Your task to perform on an android device: Open calendar and show me the second week of next month Image 0: 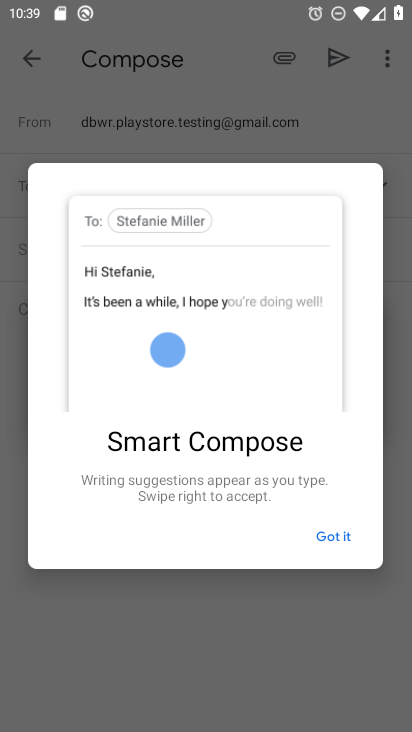
Step 0: press home button
Your task to perform on an android device: Open calendar and show me the second week of next month Image 1: 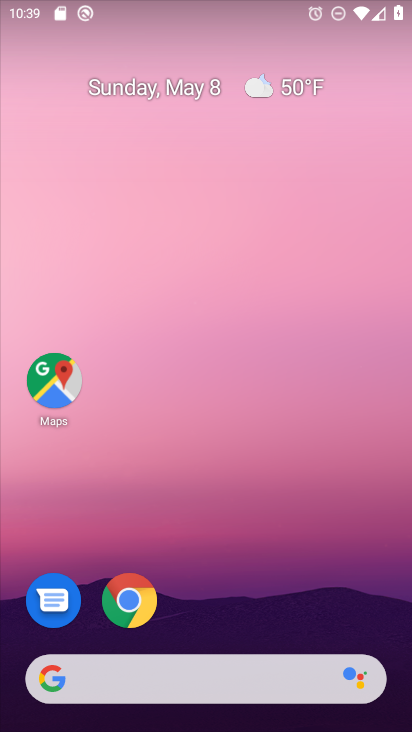
Step 1: drag from (208, 718) to (211, 268)
Your task to perform on an android device: Open calendar and show me the second week of next month Image 2: 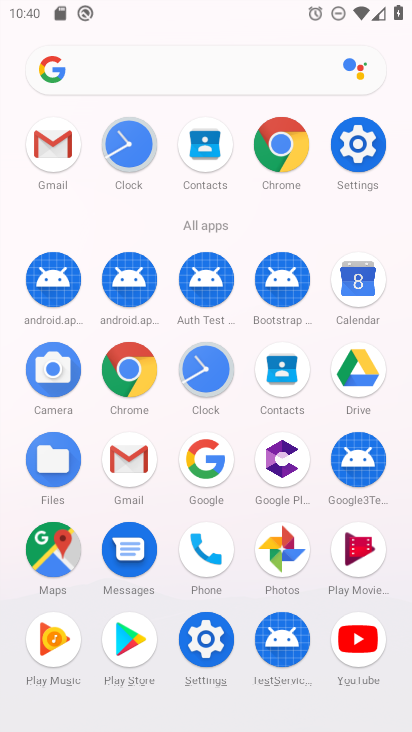
Step 2: click (363, 286)
Your task to perform on an android device: Open calendar and show me the second week of next month Image 3: 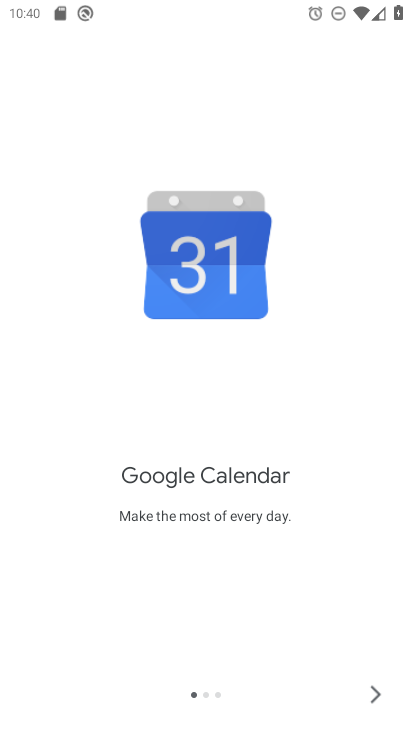
Step 3: click (370, 689)
Your task to perform on an android device: Open calendar and show me the second week of next month Image 4: 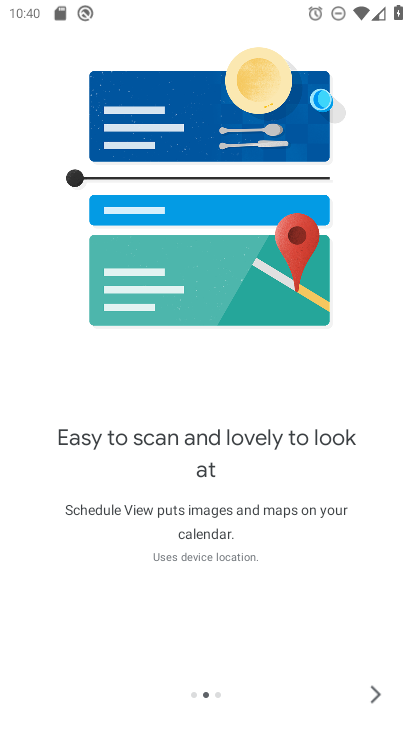
Step 4: click (378, 690)
Your task to perform on an android device: Open calendar and show me the second week of next month Image 5: 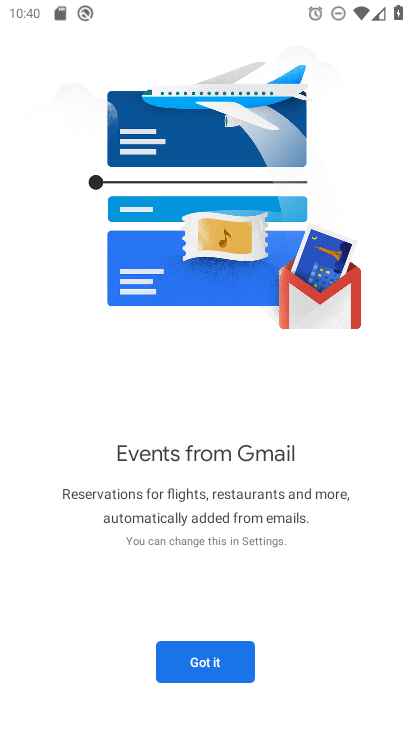
Step 5: click (215, 660)
Your task to perform on an android device: Open calendar and show me the second week of next month Image 6: 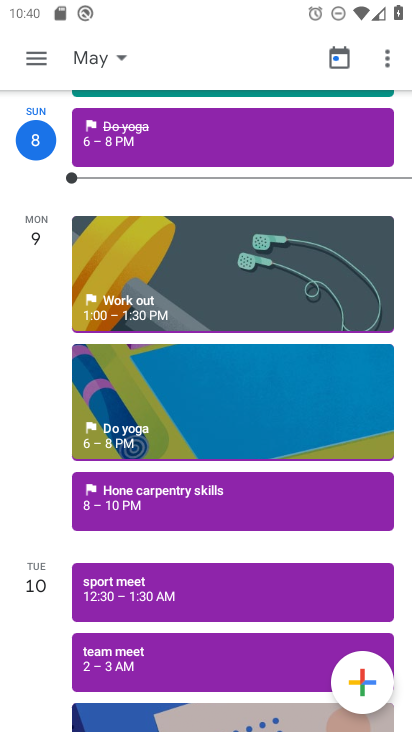
Step 6: click (91, 54)
Your task to perform on an android device: Open calendar and show me the second week of next month Image 7: 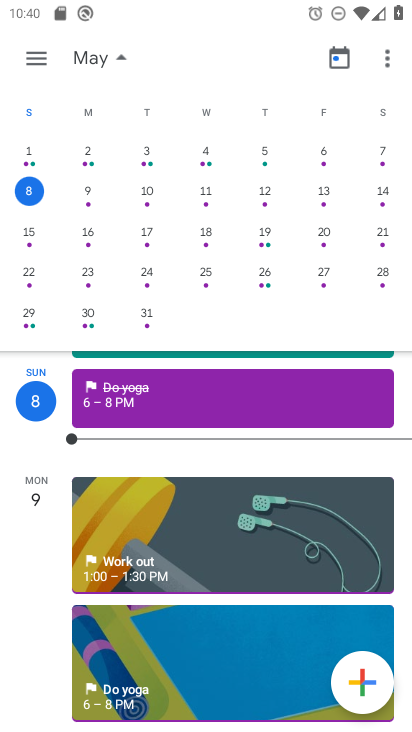
Step 7: drag from (356, 211) to (22, 239)
Your task to perform on an android device: Open calendar and show me the second week of next month Image 8: 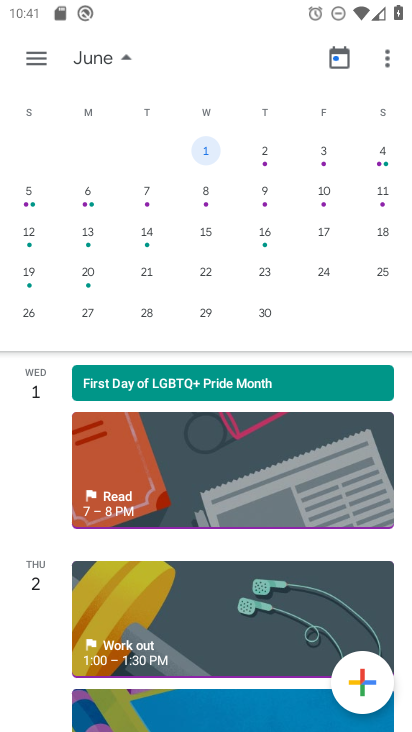
Step 8: click (84, 228)
Your task to perform on an android device: Open calendar and show me the second week of next month Image 9: 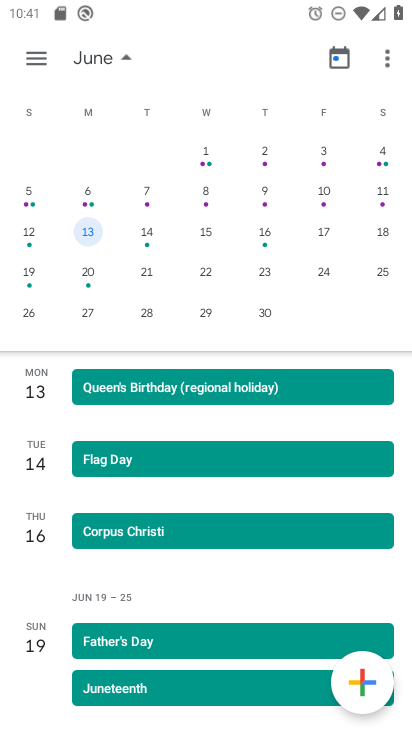
Step 9: click (26, 47)
Your task to perform on an android device: Open calendar and show me the second week of next month Image 10: 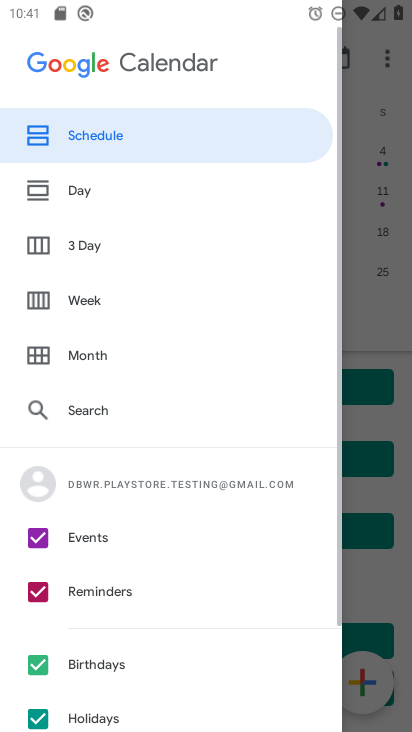
Step 10: click (92, 293)
Your task to perform on an android device: Open calendar and show me the second week of next month Image 11: 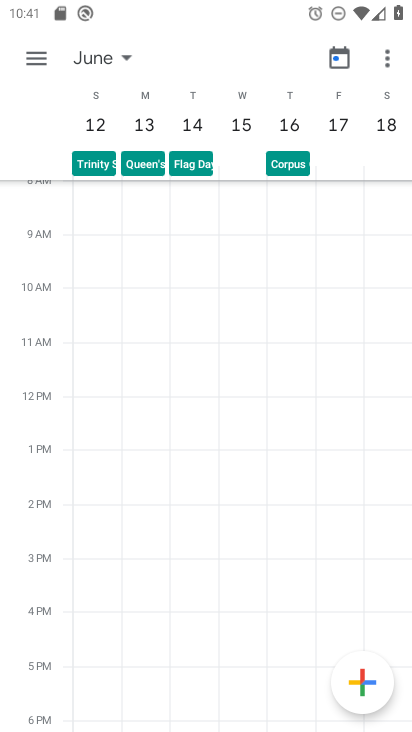
Step 11: task complete